Your task to perform on an android device: Open Yahoo.com Image 0: 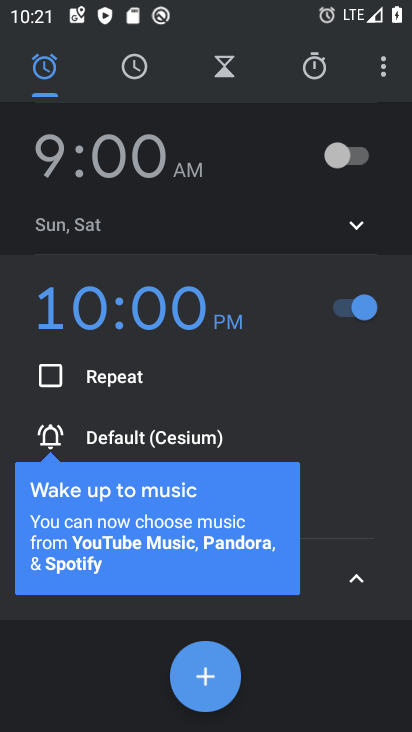
Step 0: press home button
Your task to perform on an android device: Open Yahoo.com Image 1: 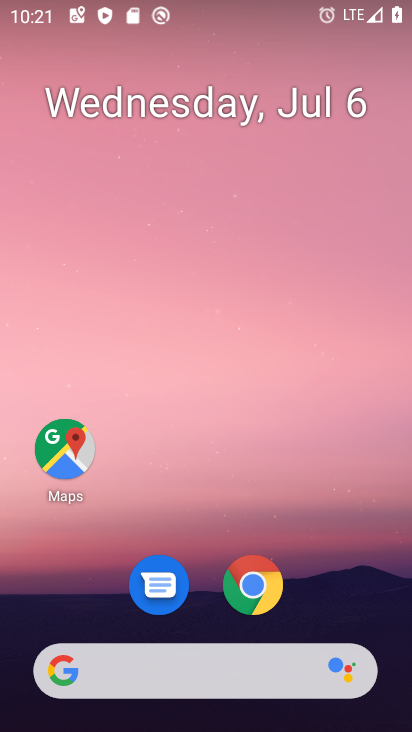
Step 1: drag from (225, 532) to (230, 1)
Your task to perform on an android device: Open Yahoo.com Image 2: 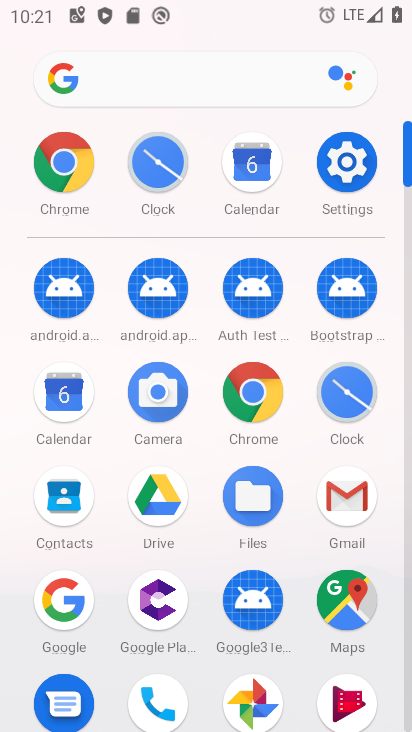
Step 2: click (140, 77)
Your task to perform on an android device: Open Yahoo.com Image 3: 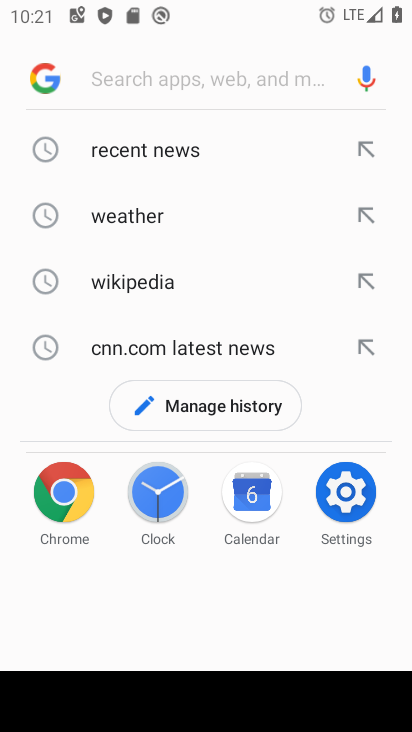
Step 3: click (50, 80)
Your task to perform on an android device: Open Yahoo.com Image 4: 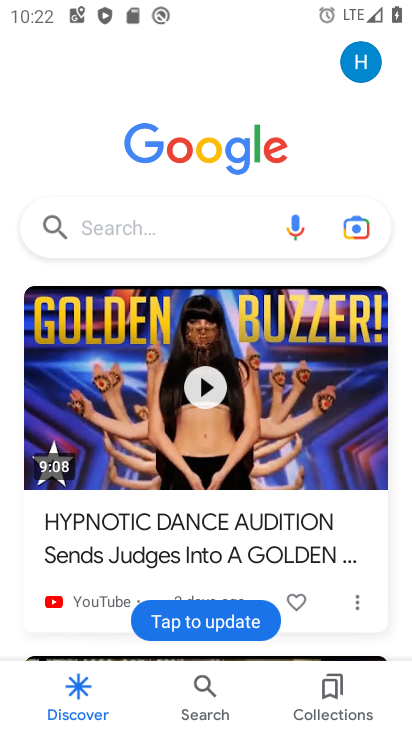
Step 4: click (128, 234)
Your task to perform on an android device: Open Yahoo.com Image 5: 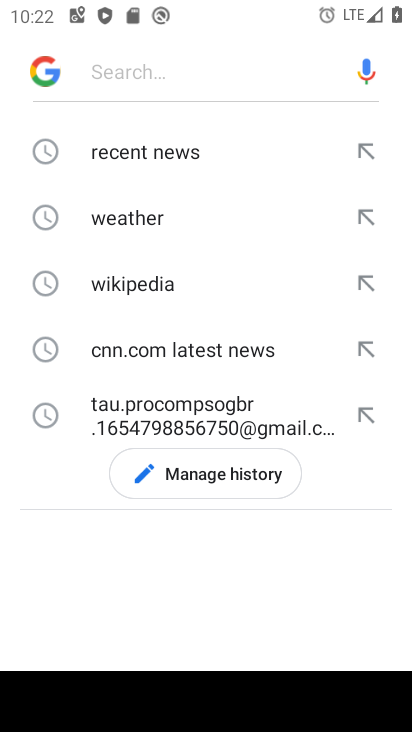
Step 5: type "yahoo.com"
Your task to perform on an android device: Open Yahoo.com Image 6: 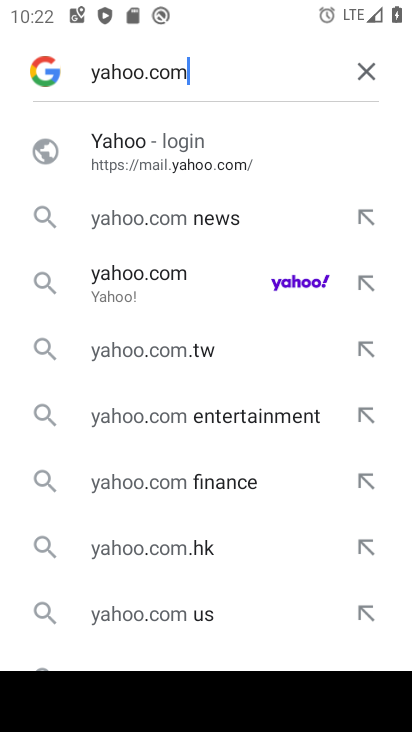
Step 6: click (166, 291)
Your task to perform on an android device: Open Yahoo.com Image 7: 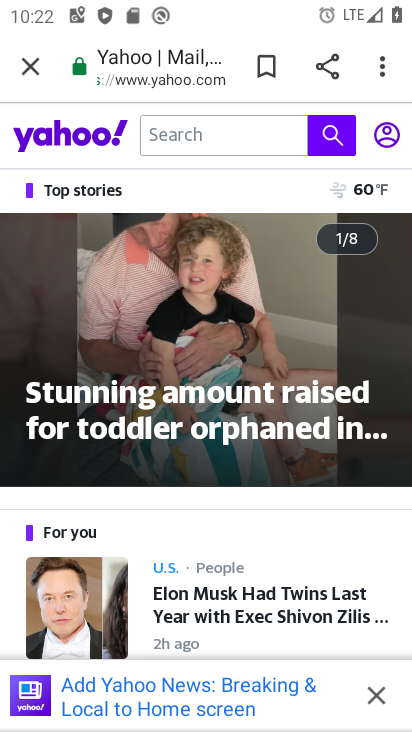
Step 7: task complete